Your task to perform on an android device: Go to Google Image 0: 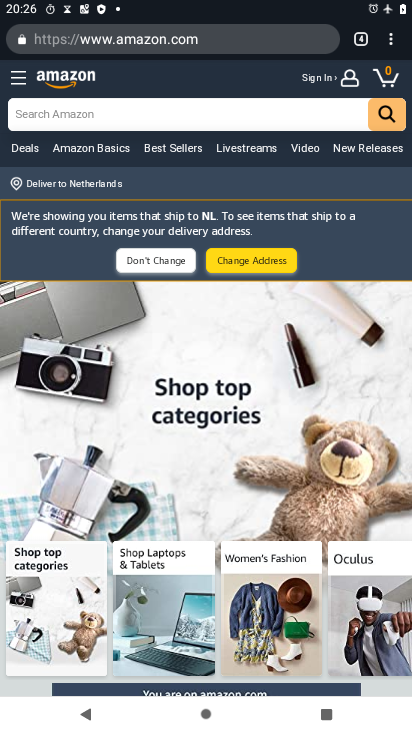
Step 0: press home button
Your task to perform on an android device: Go to Google Image 1: 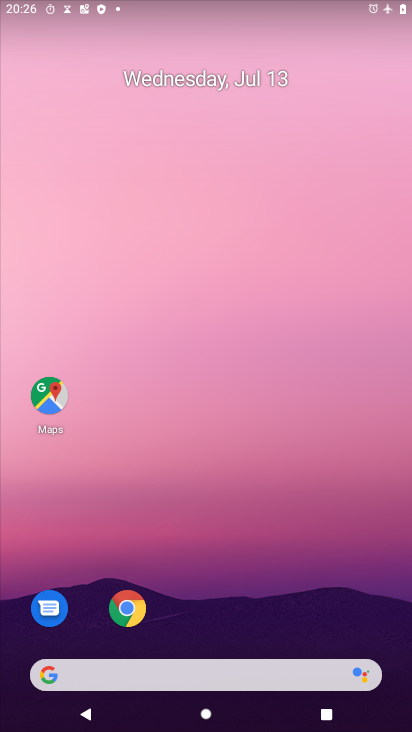
Step 1: click (225, 662)
Your task to perform on an android device: Go to Google Image 2: 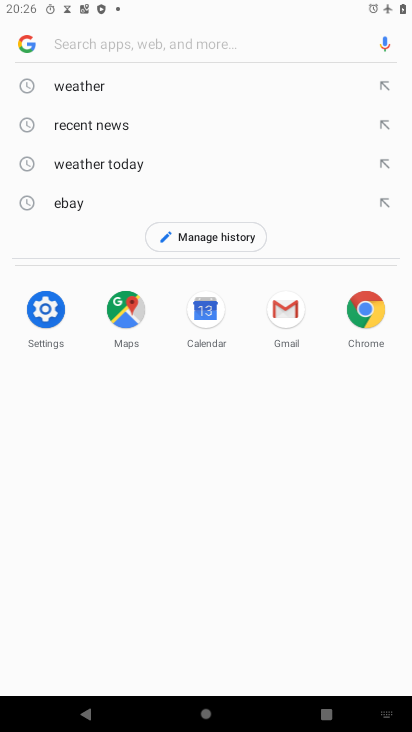
Step 2: task complete